Your task to perform on an android device: toggle show notifications on the lock screen Image 0: 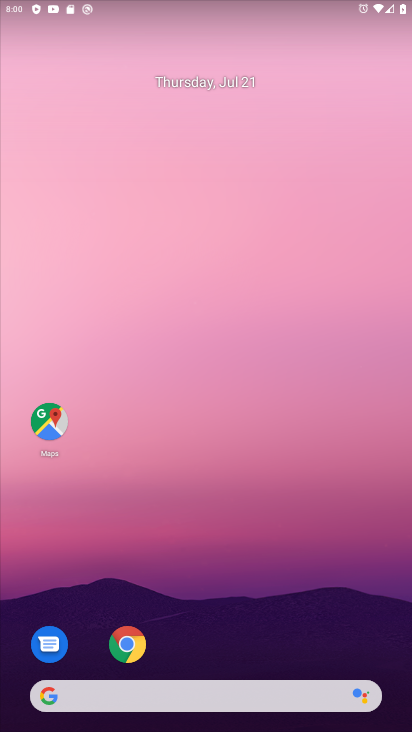
Step 0: press home button
Your task to perform on an android device: toggle show notifications on the lock screen Image 1: 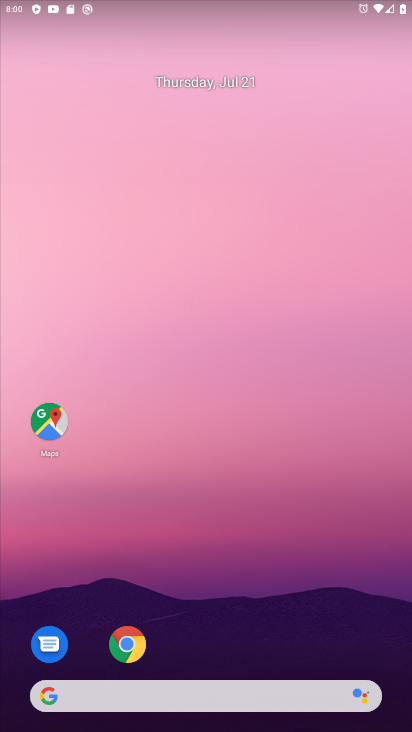
Step 1: drag from (342, 598) to (342, 90)
Your task to perform on an android device: toggle show notifications on the lock screen Image 2: 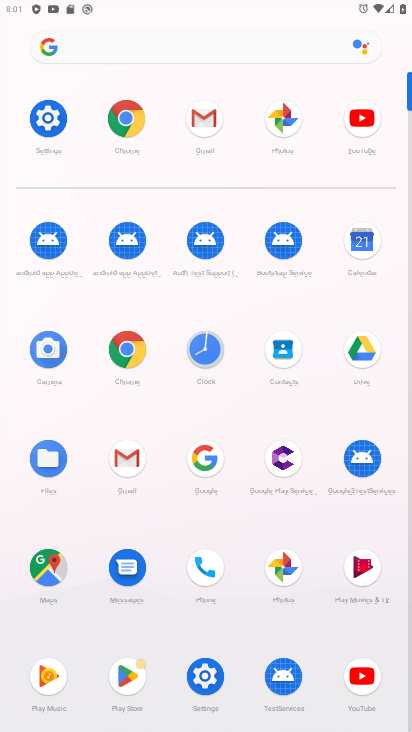
Step 2: click (52, 121)
Your task to perform on an android device: toggle show notifications on the lock screen Image 3: 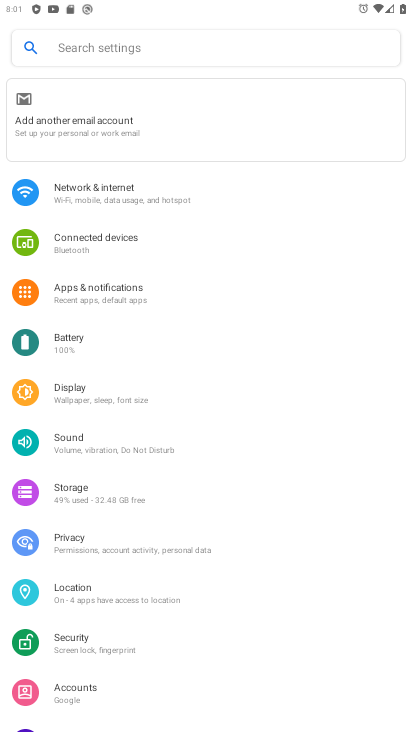
Step 3: drag from (310, 500) to (301, 452)
Your task to perform on an android device: toggle show notifications on the lock screen Image 4: 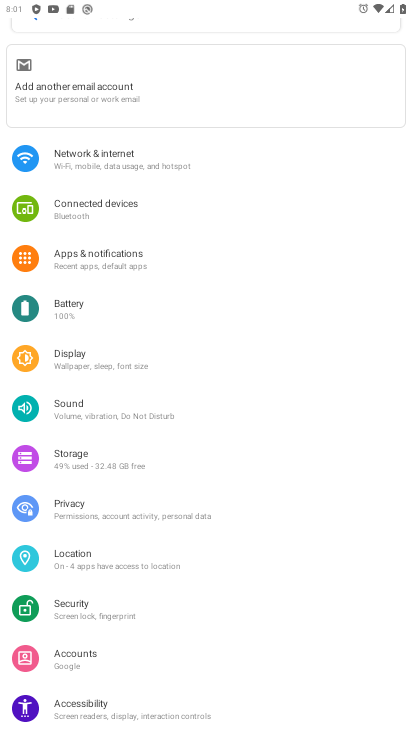
Step 4: drag from (314, 577) to (328, 460)
Your task to perform on an android device: toggle show notifications on the lock screen Image 5: 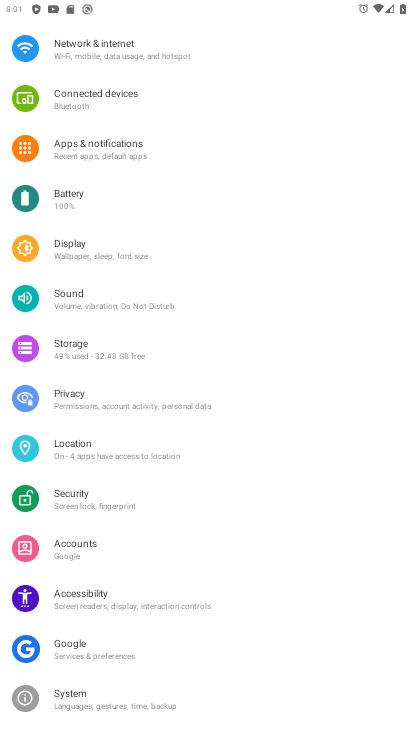
Step 5: drag from (313, 525) to (322, 384)
Your task to perform on an android device: toggle show notifications on the lock screen Image 6: 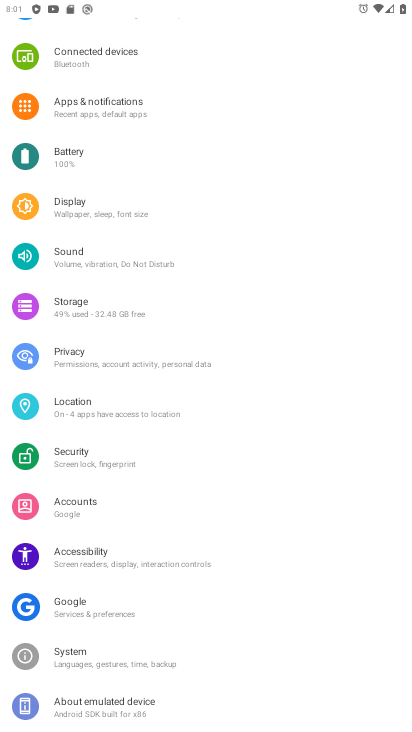
Step 6: drag from (324, 295) to (336, 443)
Your task to perform on an android device: toggle show notifications on the lock screen Image 7: 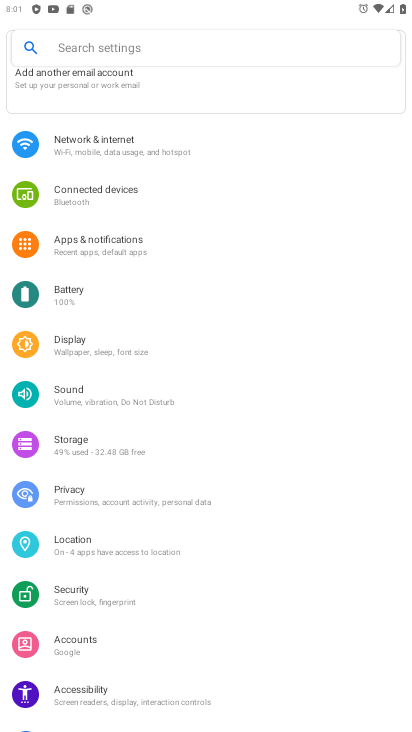
Step 7: drag from (315, 296) to (272, 505)
Your task to perform on an android device: toggle show notifications on the lock screen Image 8: 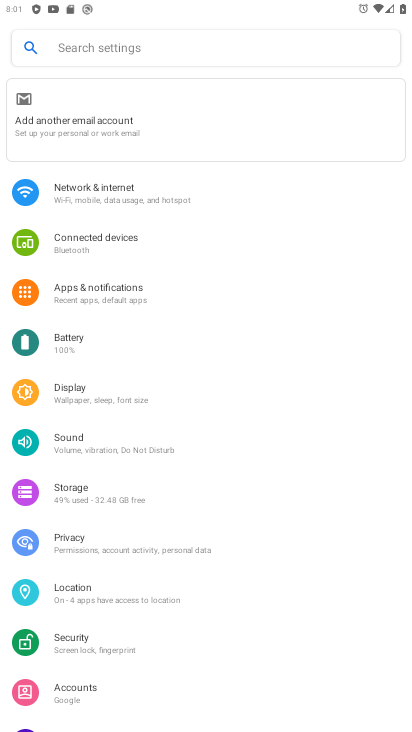
Step 8: click (165, 286)
Your task to perform on an android device: toggle show notifications on the lock screen Image 9: 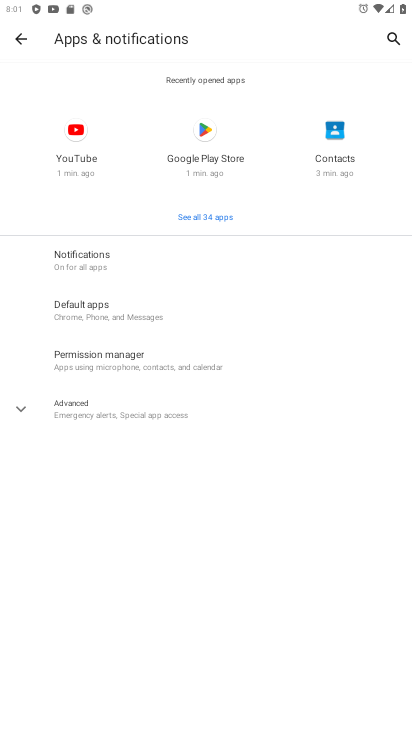
Step 9: click (165, 285)
Your task to perform on an android device: toggle show notifications on the lock screen Image 10: 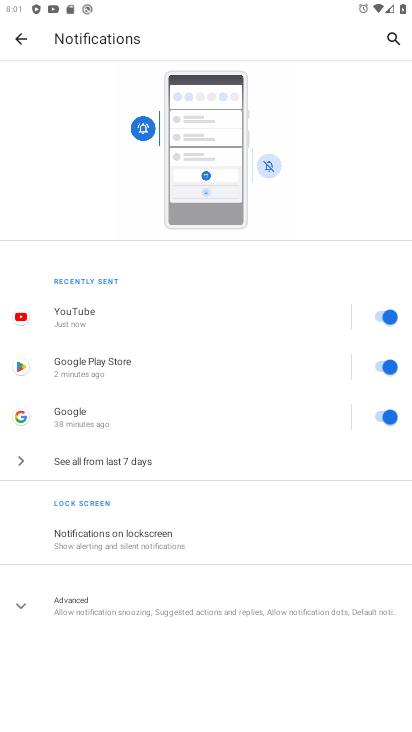
Step 10: click (215, 546)
Your task to perform on an android device: toggle show notifications on the lock screen Image 11: 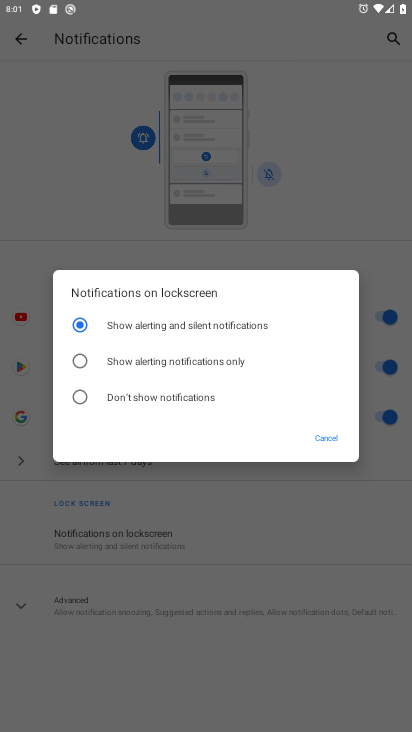
Step 11: click (218, 364)
Your task to perform on an android device: toggle show notifications on the lock screen Image 12: 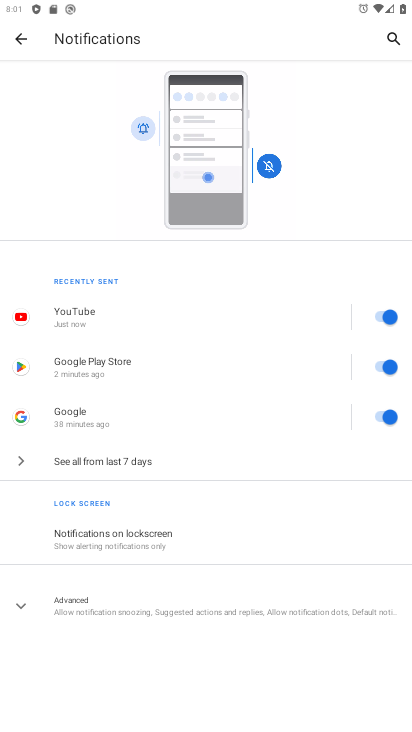
Step 12: task complete